Your task to perform on an android device: change notifications settings Image 0: 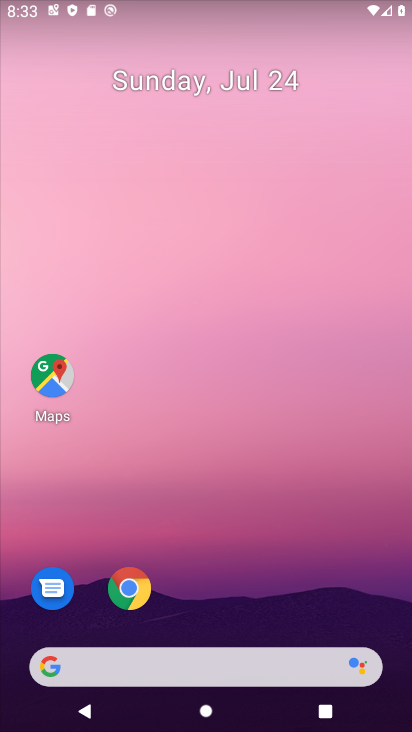
Step 0: drag from (171, 396) to (338, 13)
Your task to perform on an android device: change notifications settings Image 1: 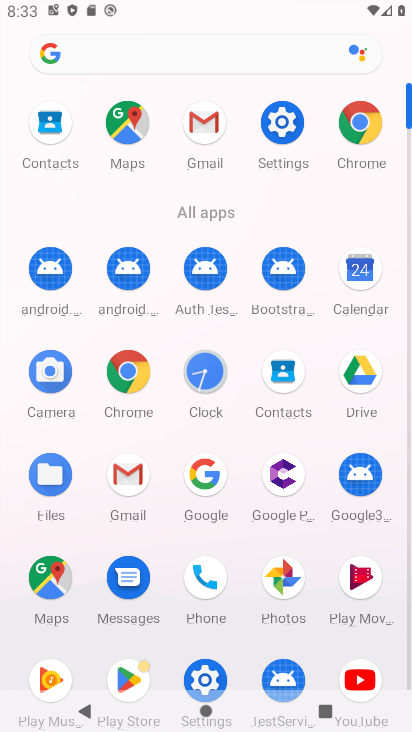
Step 1: click (293, 138)
Your task to perform on an android device: change notifications settings Image 2: 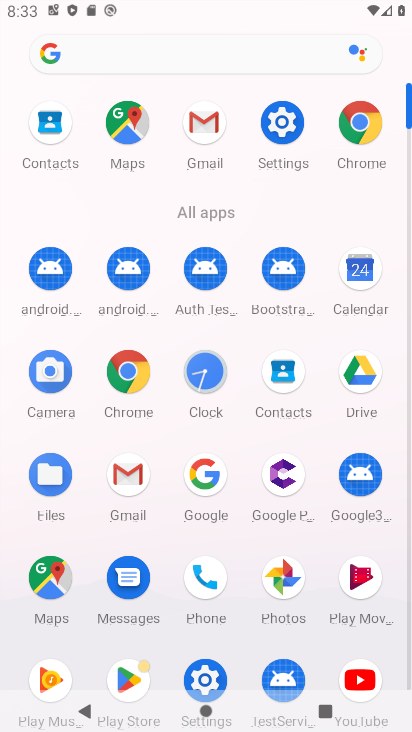
Step 2: click (293, 138)
Your task to perform on an android device: change notifications settings Image 3: 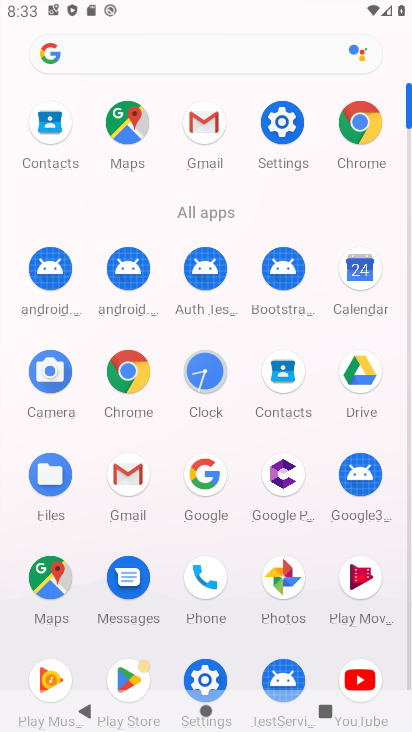
Step 3: click (282, 125)
Your task to perform on an android device: change notifications settings Image 4: 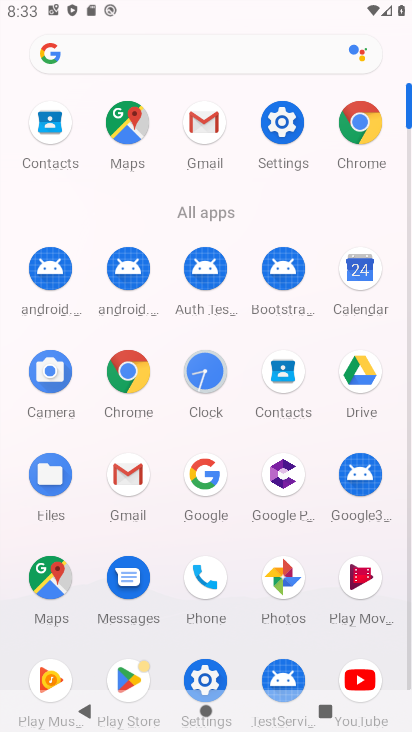
Step 4: click (282, 125)
Your task to perform on an android device: change notifications settings Image 5: 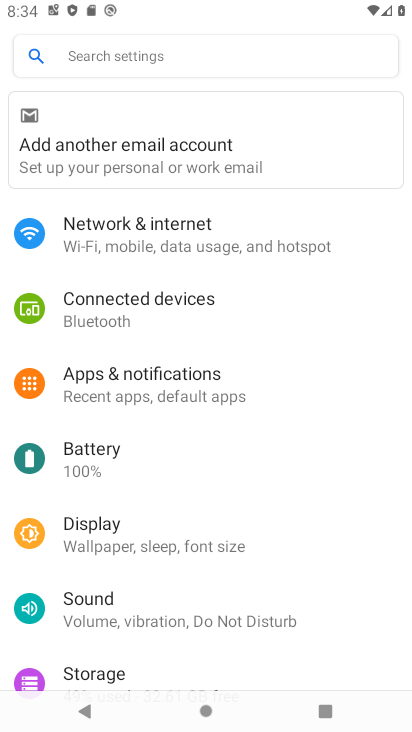
Step 5: click (136, 380)
Your task to perform on an android device: change notifications settings Image 6: 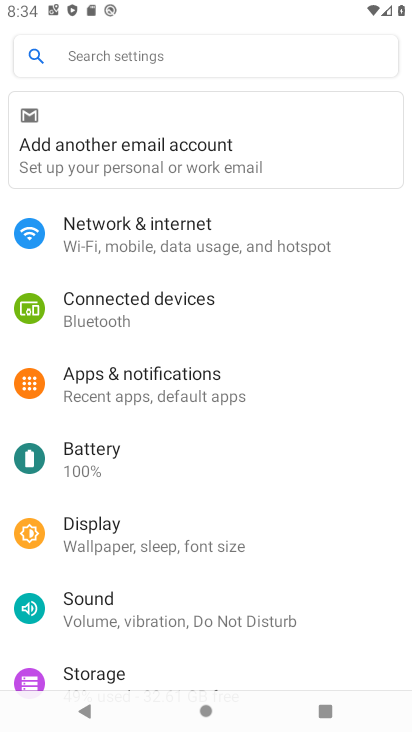
Step 6: click (136, 380)
Your task to perform on an android device: change notifications settings Image 7: 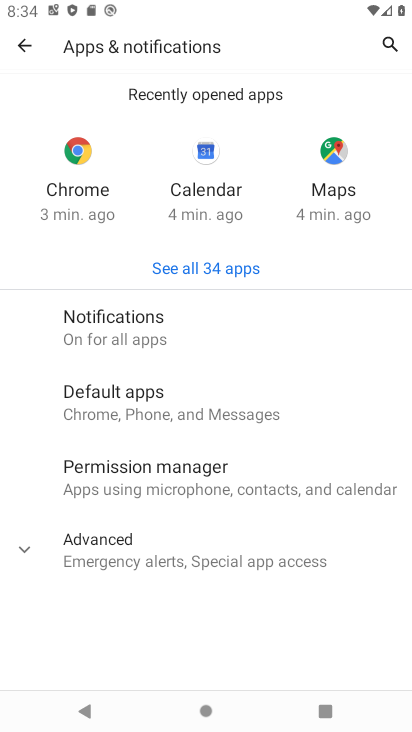
Step 7: click (213, 326)
Your task to perform on an android device: change notifications settings Image 8: 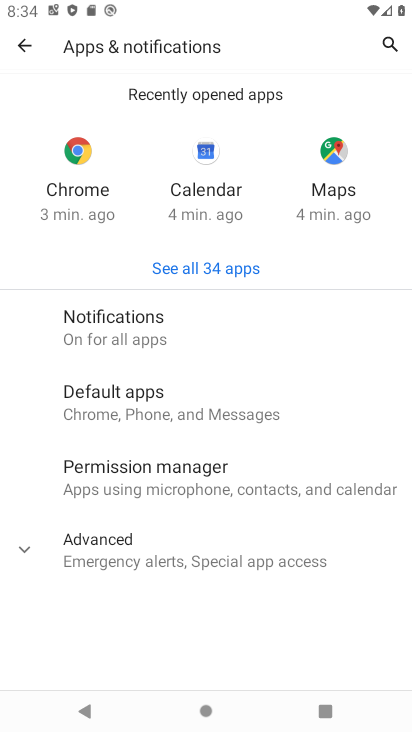
Step 8: click (213, 326)
Your task to perform on an android device: change notifications settings Image 9: 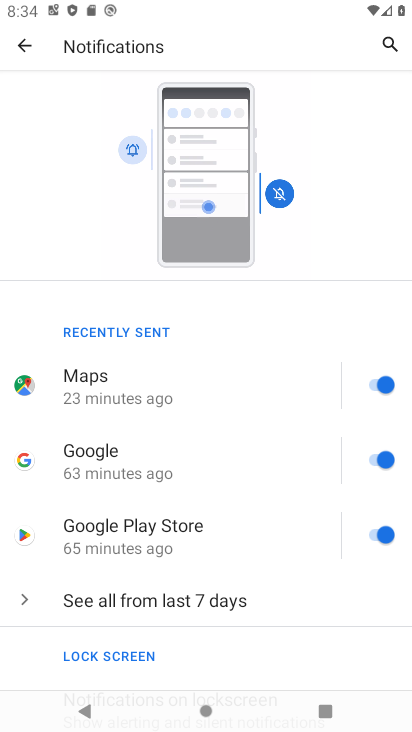
Step 9: click (387, 386)
Your task to perform on an android device: change notifications settings Image 10: 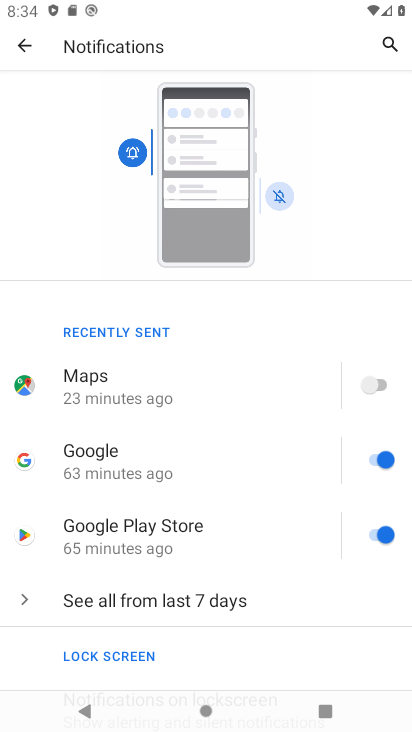
Step 10: task complete